Your task to perform on an android device: Go to CNN.com Image 0: 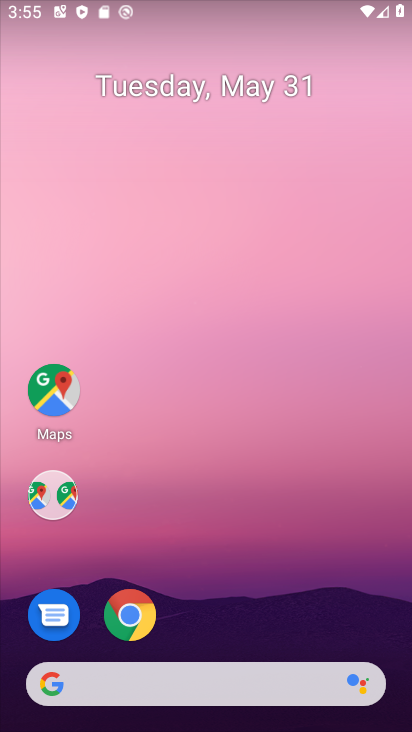
Step 0: drag from (298, 686) to (217, 220)
Your task to perform on an android device: Go to CNN.com Image 1: 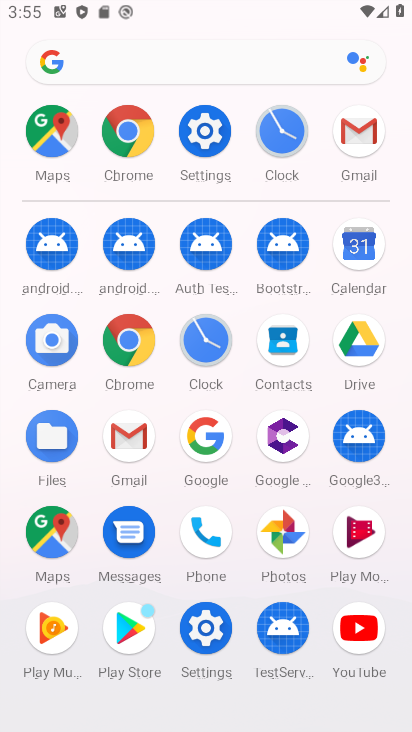
Step 1: click (385, 517)
Your task to perform on an android device: Go to CNN.com Image 2: 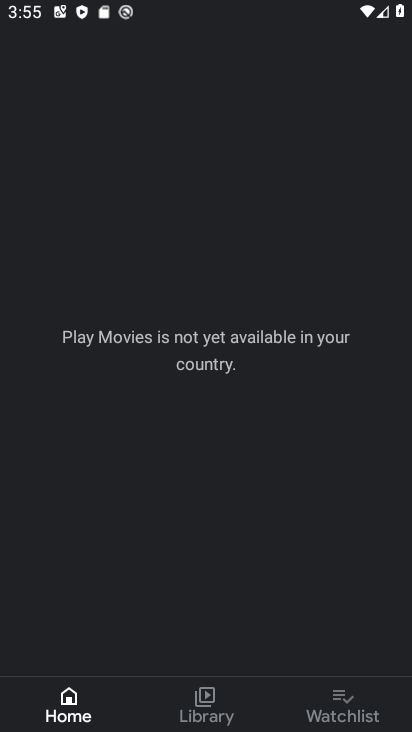
Step 2: press back button
Your task to perform on an android device: Go to CNN.com Image 3: 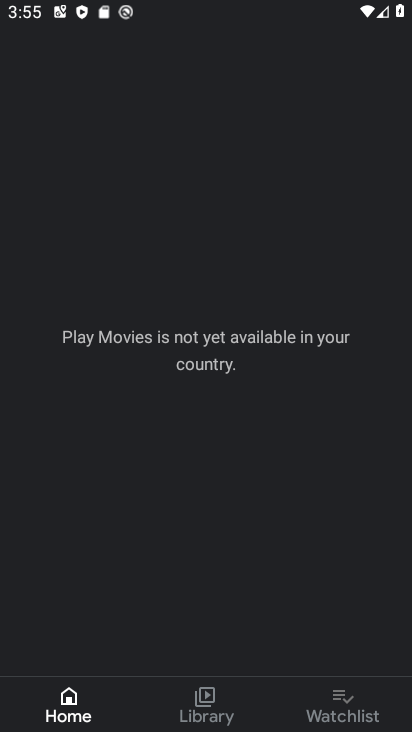
Step 3: press back button
Your task to perform on an android device: Go to CNN.com Image 4: 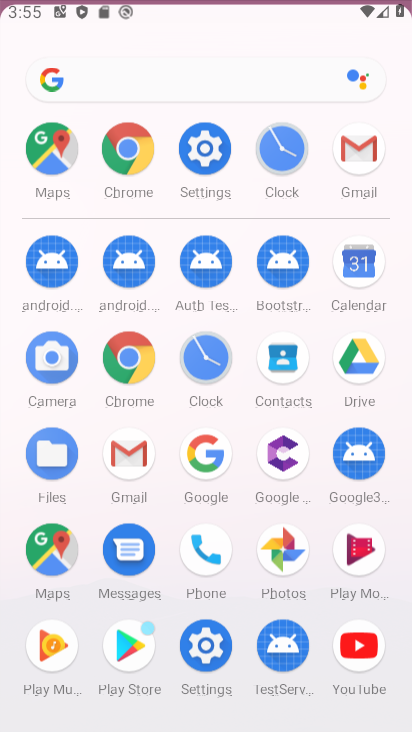
Step 4: press back button
Your task to perform on an android device: Go to CNN.com Image 5: 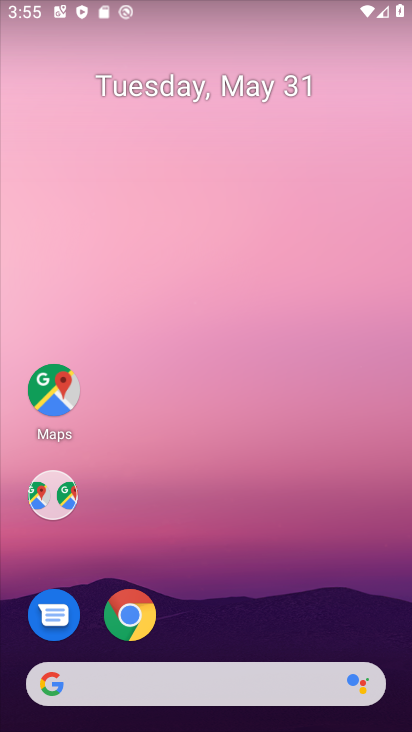
Step 5: drag from (257, 666) to (140, 2)
Your task to perform on an android device: Go to CNN.com Image 6: 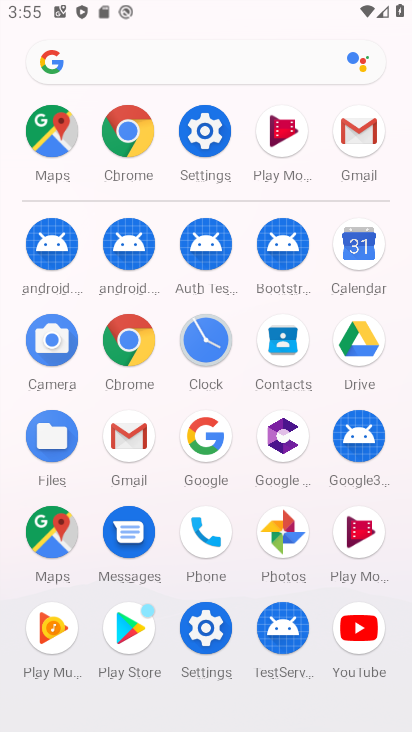
Step 6: click (121, 131)
Your task to perform on an android device: Go to CNN.com Image 7: 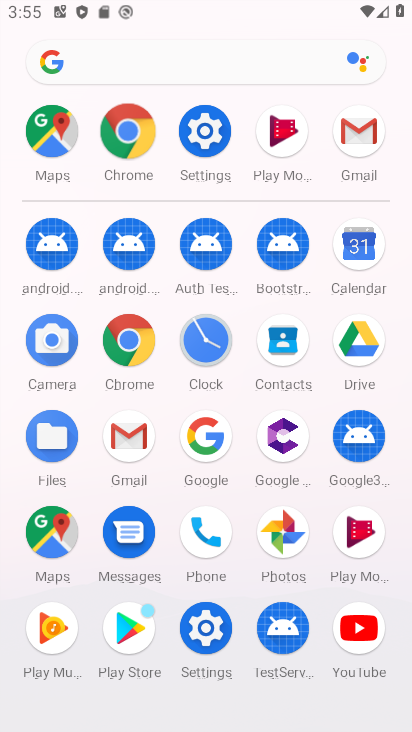
Step 7: click (124, 136)
Your task to perform on an android device: Go to CNN.com Image 8: 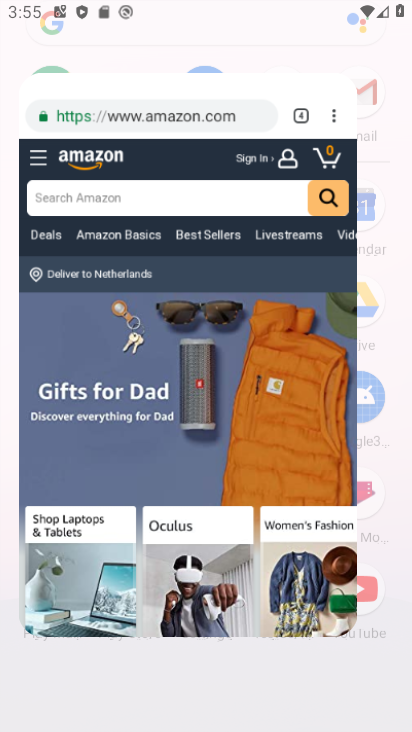
Step 8: click (126, 140)
Your task to perform on an android device: Go to CNN.com Image 9: 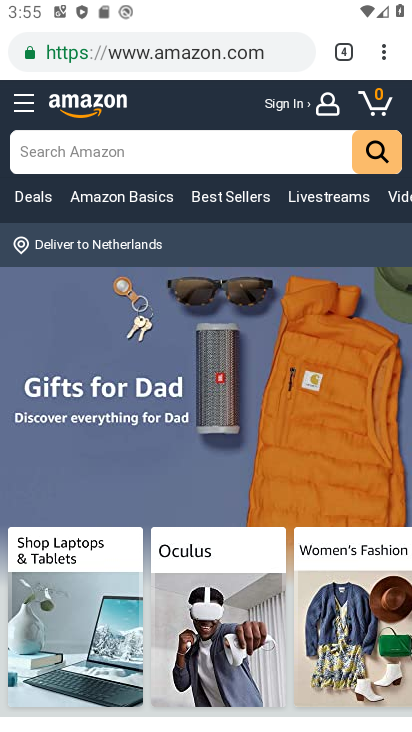
Step 9: click (386, 49)
Your task to perform on an android device: Go to CNN.com Image 10: 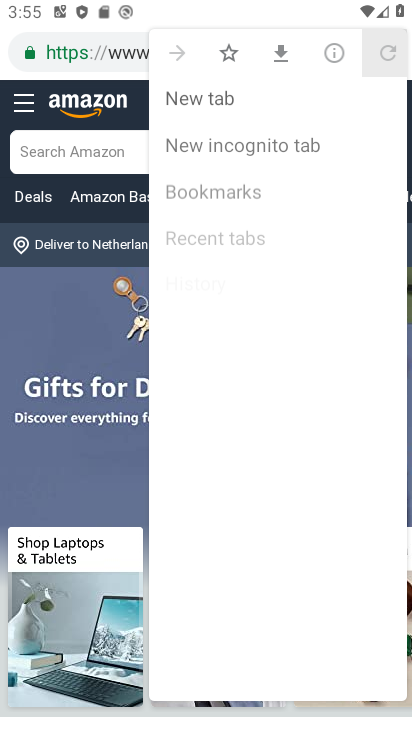
Step 10: click (385, 48)
Your task to perform on an android device: Go to CNN.com Image 11: 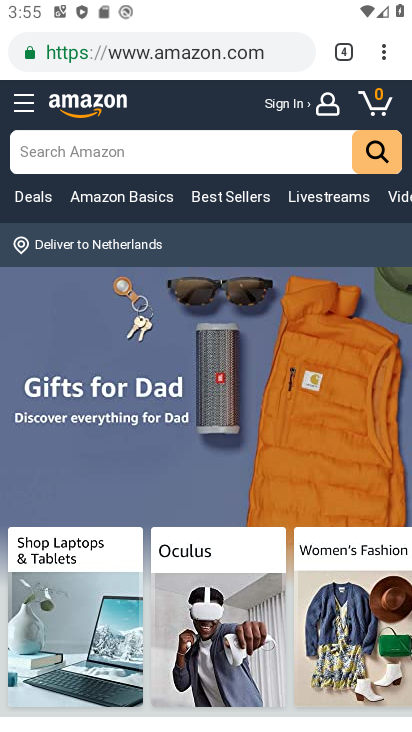
Step 11: drag from (382, 56) to (189, 103)
Your task to perform on an android device: Go to CNN.com Image 12: 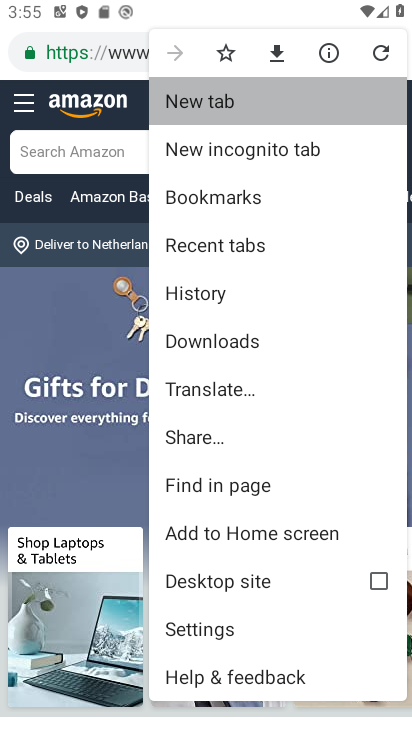
Step 12: click (186, 96)
Your task to perform on an android device: Go to CNN.com Image 13: 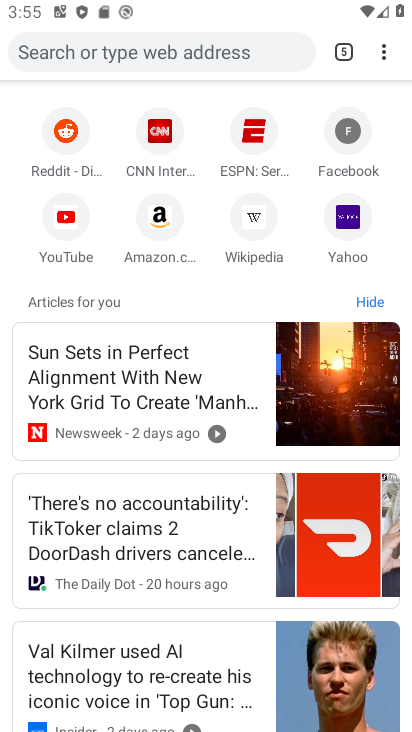
Step 13: click (157, 123)
Your task to perform on an android device: Go to CNN.com Image 14: 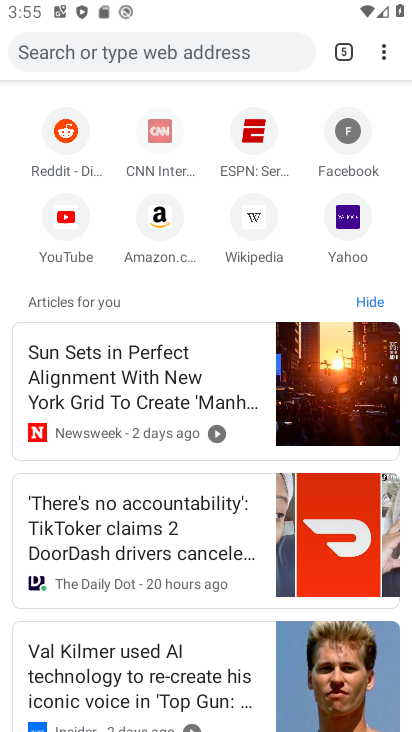
Step 14: click (159, 122)
Your task to perform on an android device: Go to CNN.com Image 15: 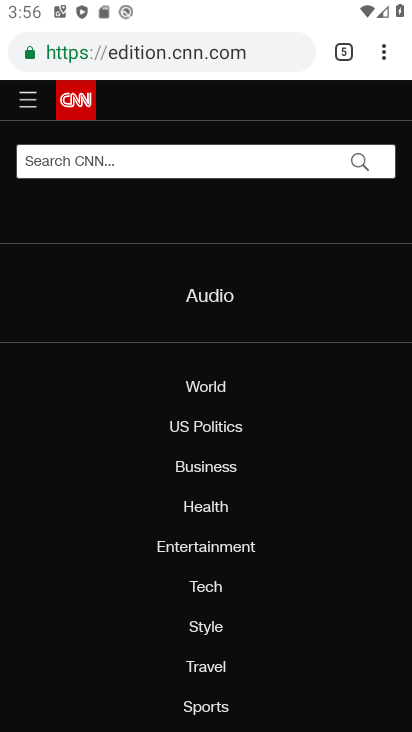
Step 15: task complete